Your task to perform on an android device: What's the weather today? Image 0: 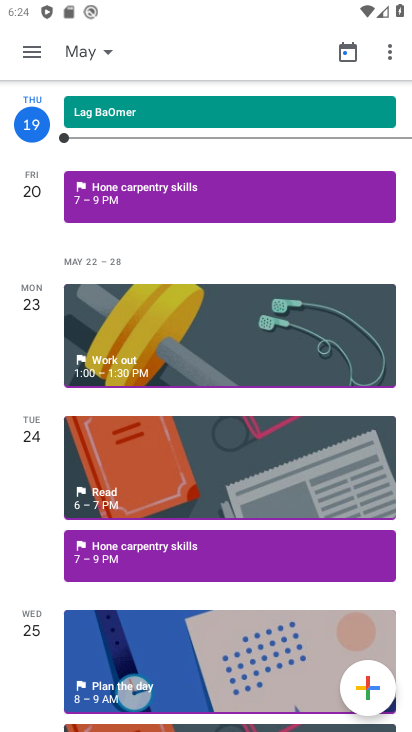
Step 0: press home button
Your task to perform on an android device: What's the weather today? Image 1: 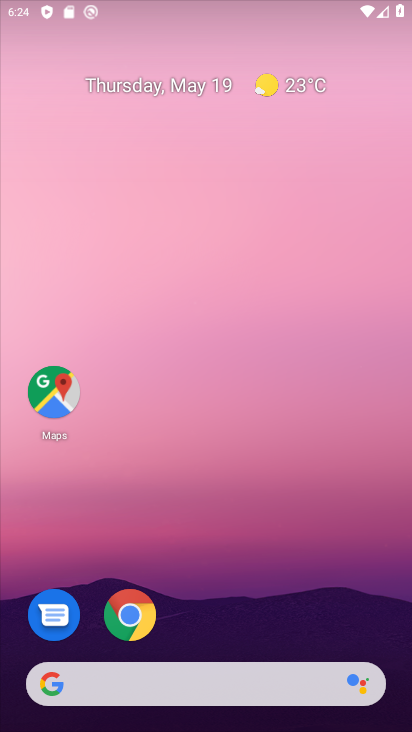
Step 1: drag from (376, 606) to (246, 41)
Your task to perform on an android device: What's the weather today? Image 2: 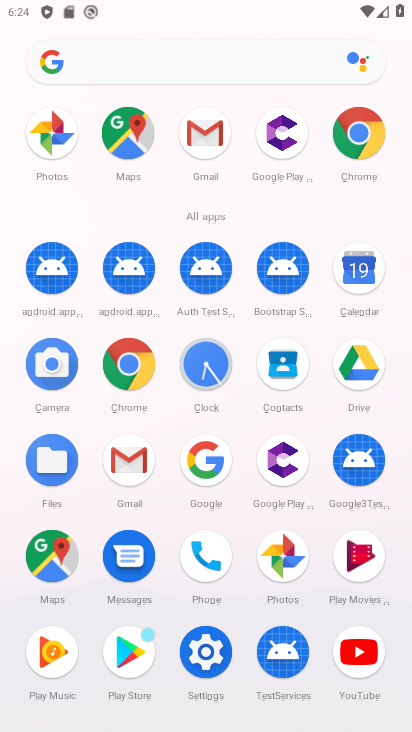
Step 2: click (209, 482)
Your task to perform on an android device: What's the weather today? Image 3: 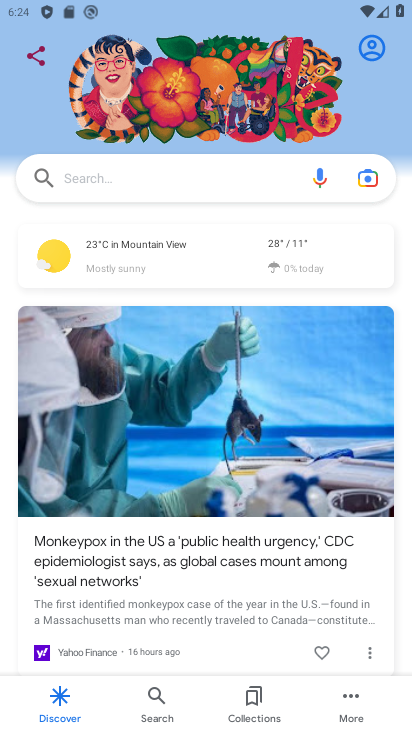
Step 3: click (151, 172)
Your task to perform on an android device: What's the weather today? Image 4: 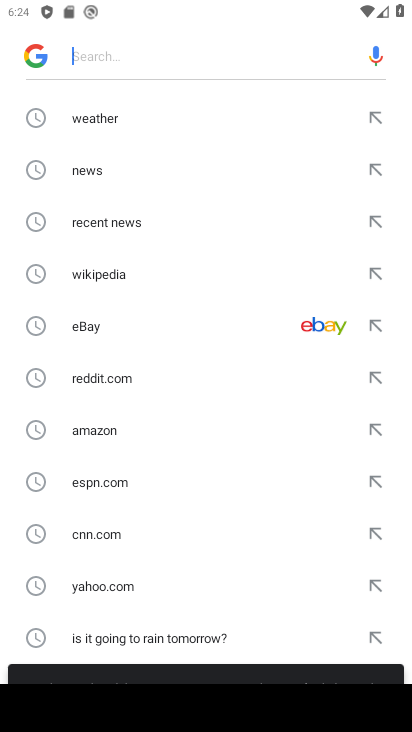
Step 4: drag from (122, 566) to (151, 109)
Your task to perform on an android device: What's the weather today? Image 5: 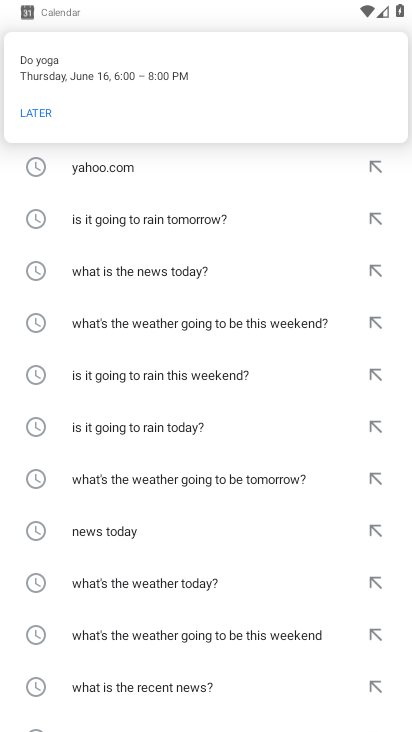
Step 5: drag from (111, 596) to (173, 375)
Your task to perform on an android device: What's the weather today? Image 6: 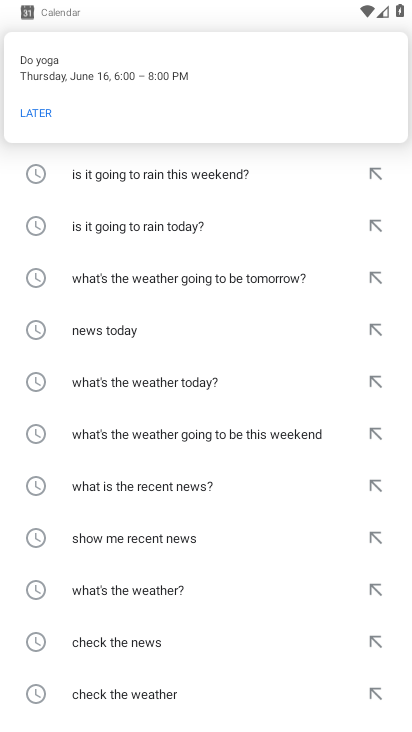
Step 6: click (197, 387)
Your task to perform on an android device: What's the weather today? Image 7: 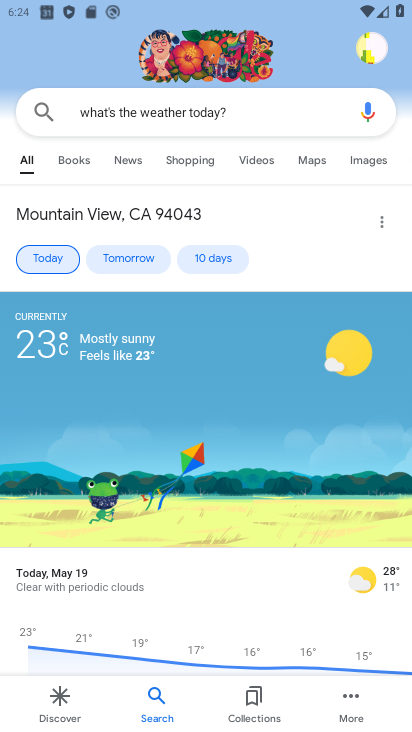
Step 7: task complete